Your task to perform on an android device: Check the news Image 0: 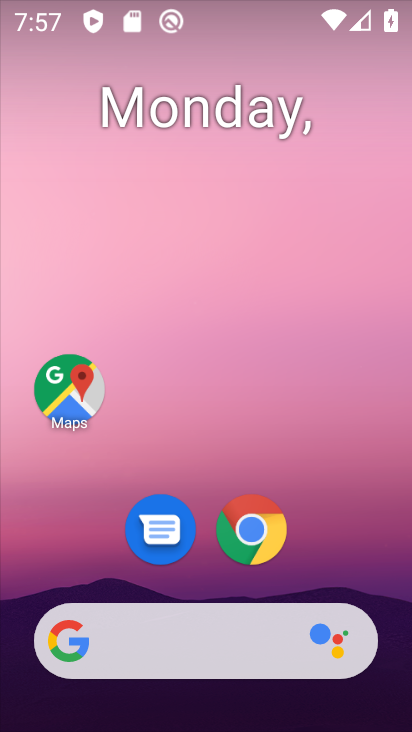
Step 0: drag from (197, 540) to (251, 102)
Your task to perform on an android device: Check the news Image 1: 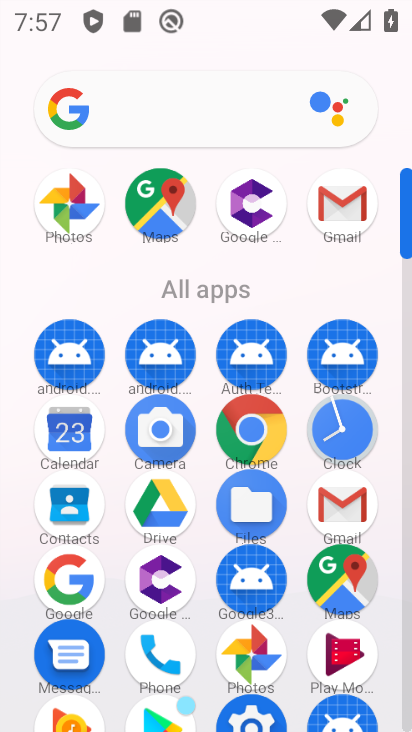
Step 1: click (83, 596)
Your task to perform on an android device: Check the news Image 2: 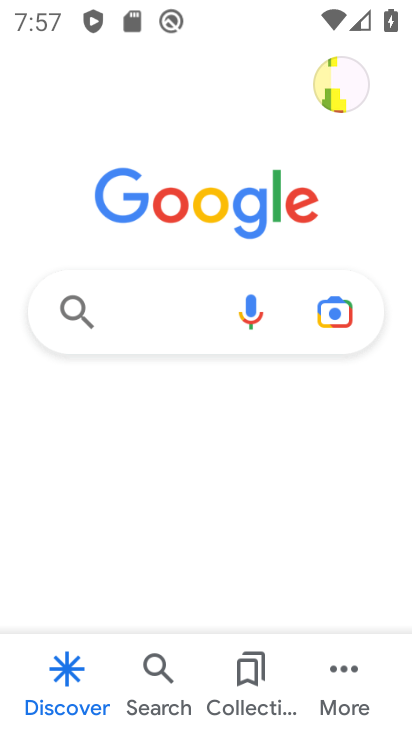
Step 2: click (158, 328)
Your task to perform on an android device: Check the news Image 3: 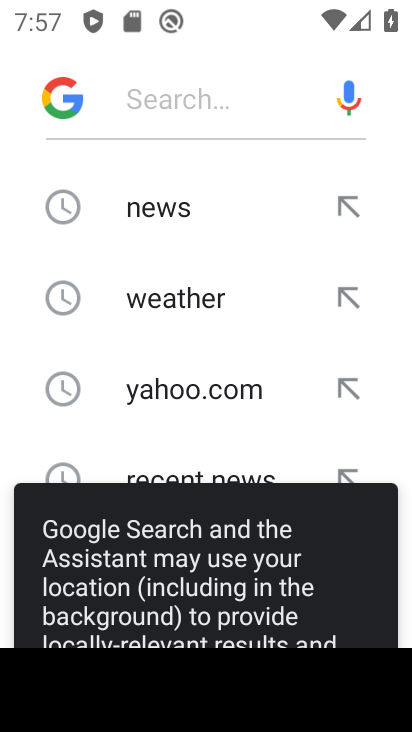
Step 3: click (154, 215)
Your task to perform on an android device: Check the news Image 4: 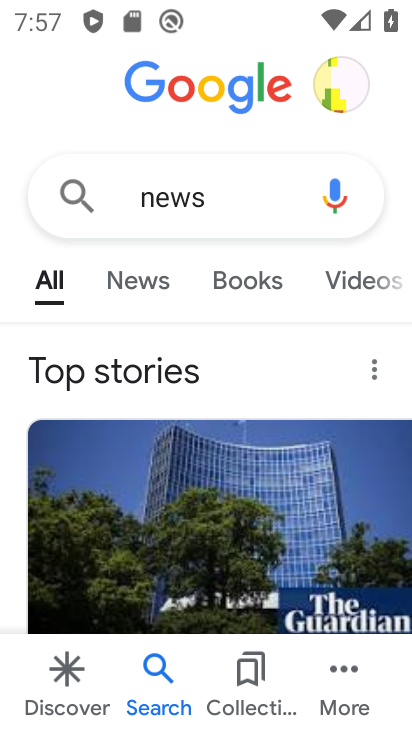
Step 4: click (136, 274)
Your task to perform on an android device: Check the news Image 5: 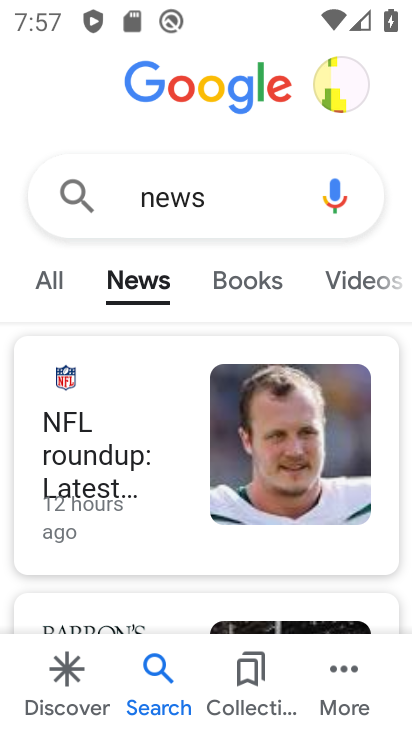
Step 5: task complete